Your task to perform on an android device: check storage Image 0: 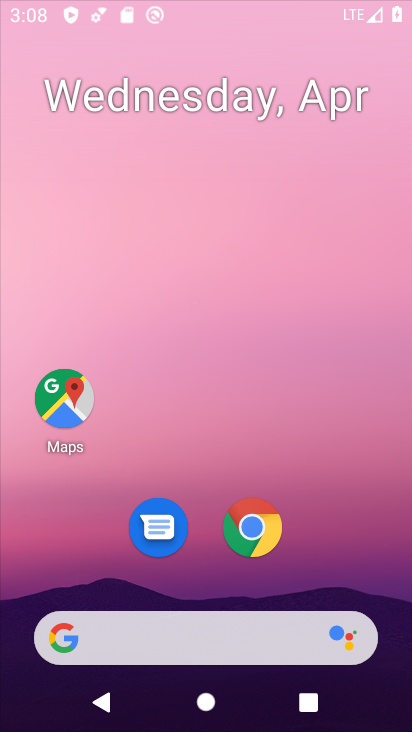
Step 0: drag from (227, 187) to (238, 15)
Your task to perform on an android device: check storage Image 1: 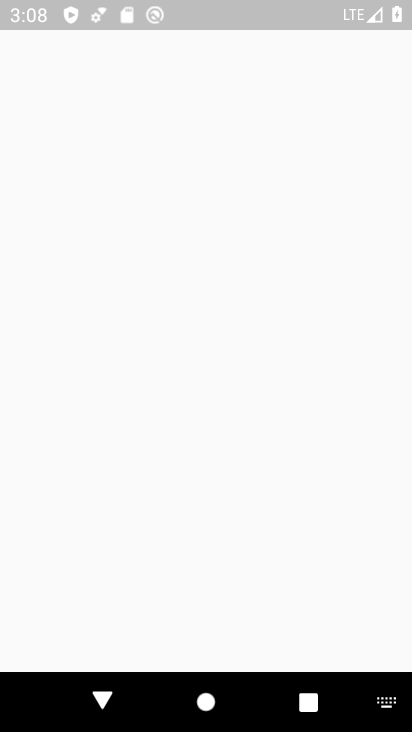
Step 1: press home button
Your task to perform on an android device: check storage Image 2: 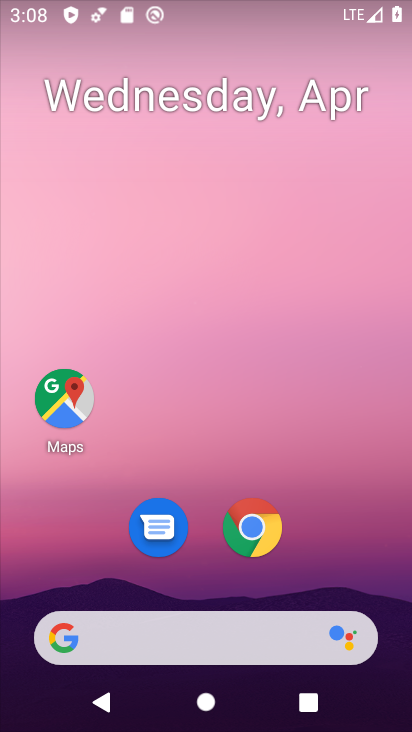
Step 2: drag from (213, 452) to (232, 115)
Your task to perform on an android device: check storage Image 3: 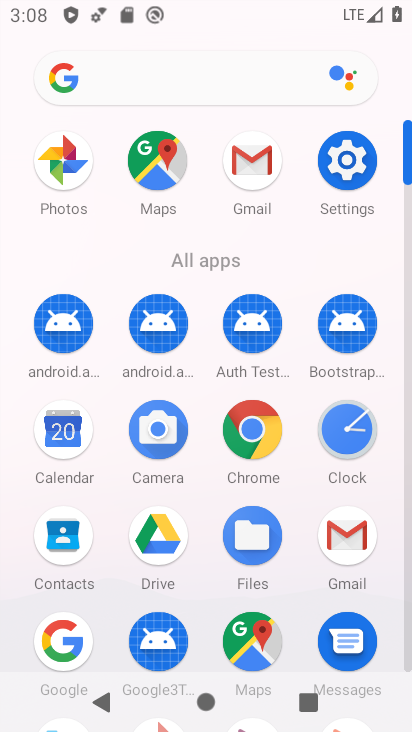
Step 3: click (345, 161)
Your task to perform on an android device: check storage Image 4: 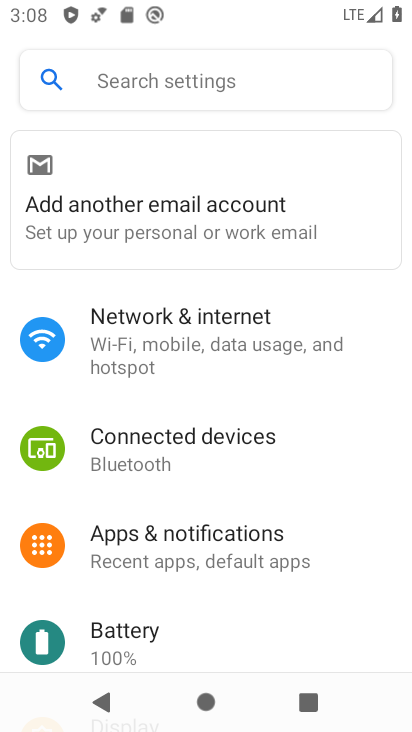
Step 4: drag from (155, 526) to (206, 131)
Your task to perform on an android device: check storage Image 5: 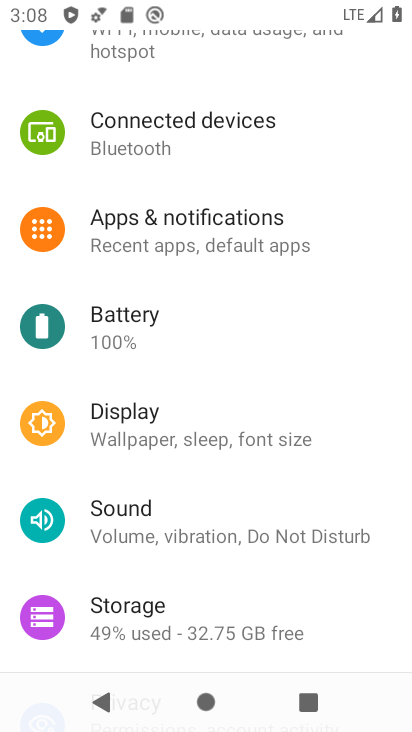
Step 5: click (182, 618)
Your task to perform on an android device: check storage Image 6: 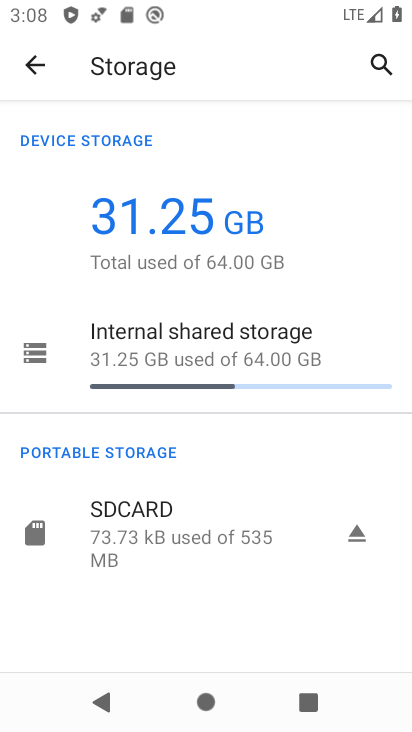
Step 6: task complete